Your task to perform on an android device: Open accessibility settings Image 0: 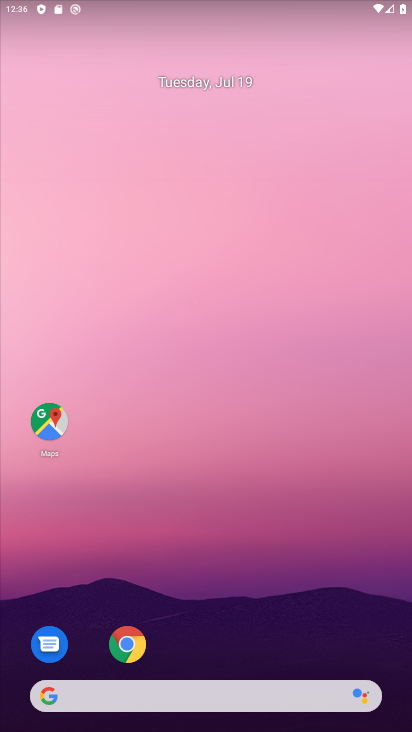
Step 0: drag from (260, 654) to (225, 6)
Your task to perform on an android device: Open accessibility settings Image 1: 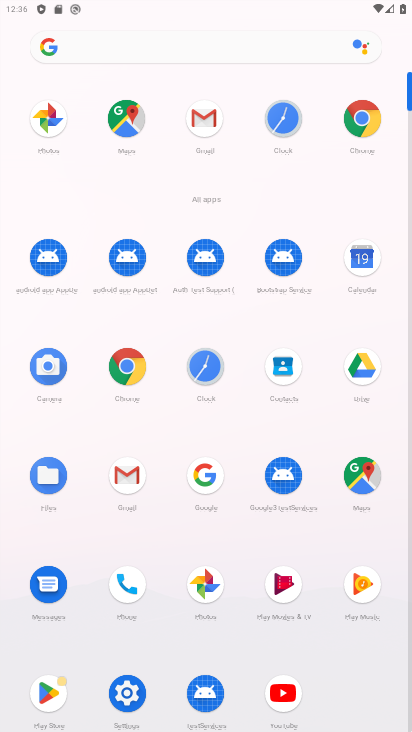
Step 1: click (133, 703)
Your task to perform on an android device: Open accessibility settings Image 2: 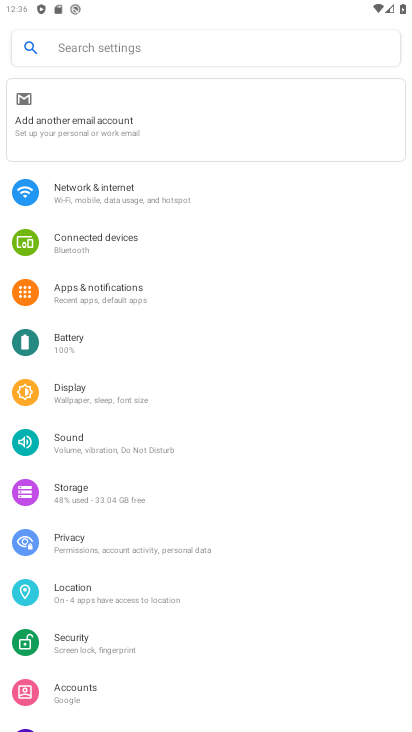
Step 2: drag from (124, 689) to (76, 572)
Your task to perform on an android device: Open accessibility settings Image 3: 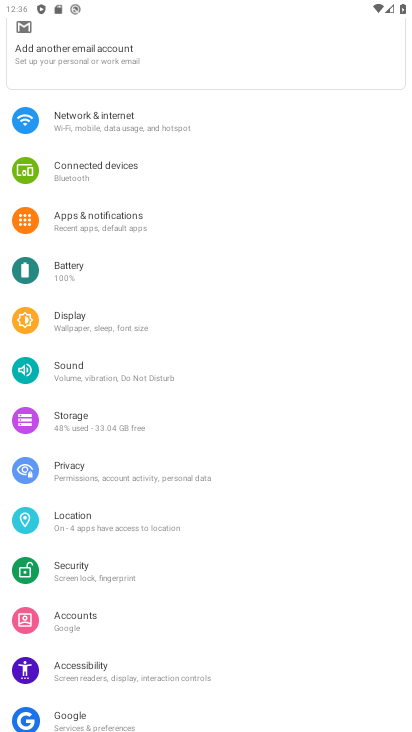
Step 3: click (108, 660)
Your task to perform on an android device: Open accessibility settings Image 4: 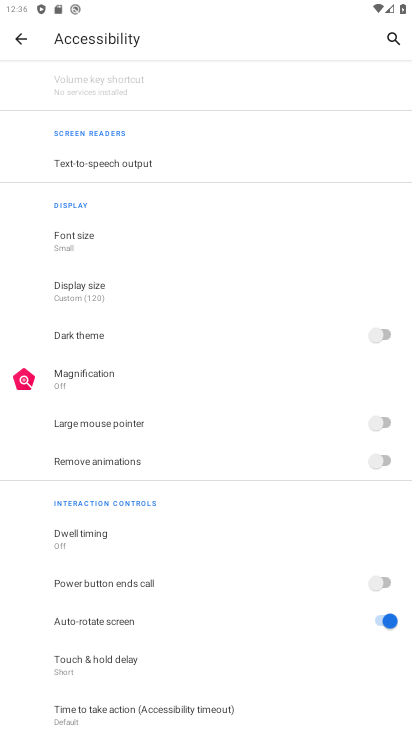
Step 4: task complete